Your task to perform on an android device: change your default location settings in chrome Image 0: 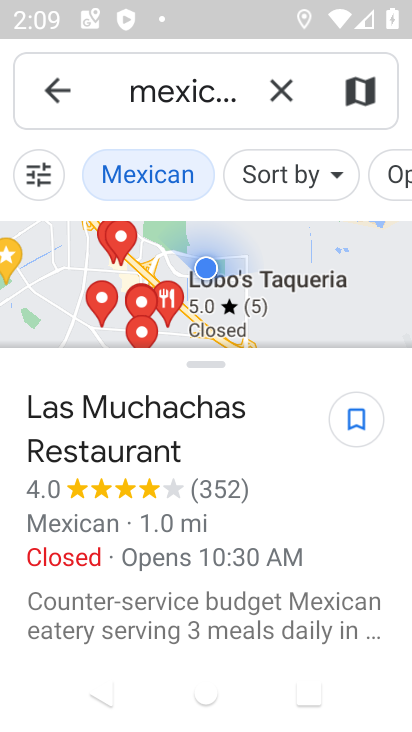
Step 0: task complete